Your task to perform on an android device: turn smart compose on in the gmail app Image 0: 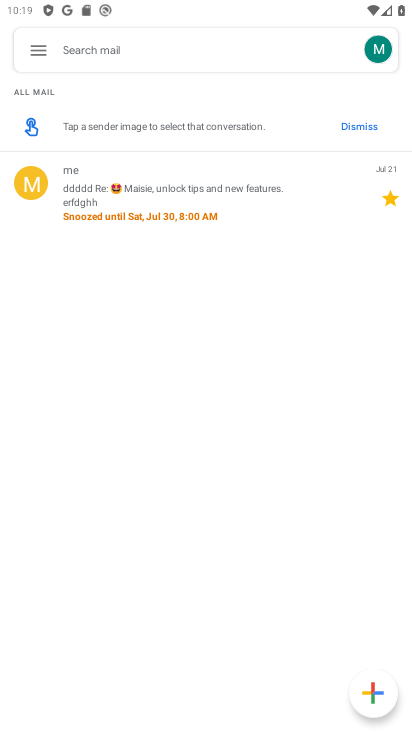
Step 0: press home button
Your task to perform on an android device: turn smart compose on in the gmail app Image 1: 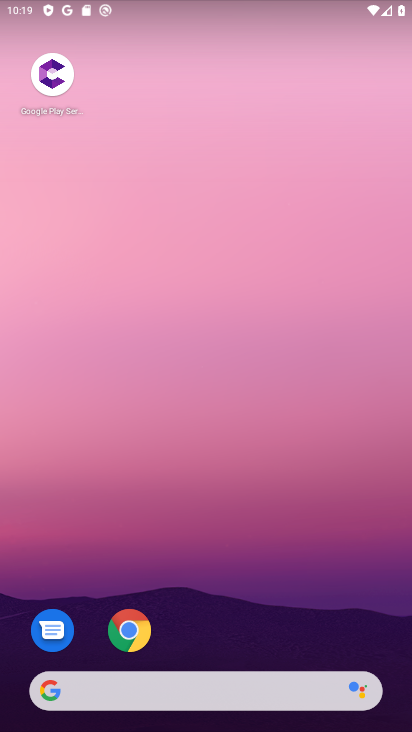
Step 1: drag from (253, 403) to (249, 76)
Your task to perform on an android device: turn smart compose on in the gmail app Image 2: 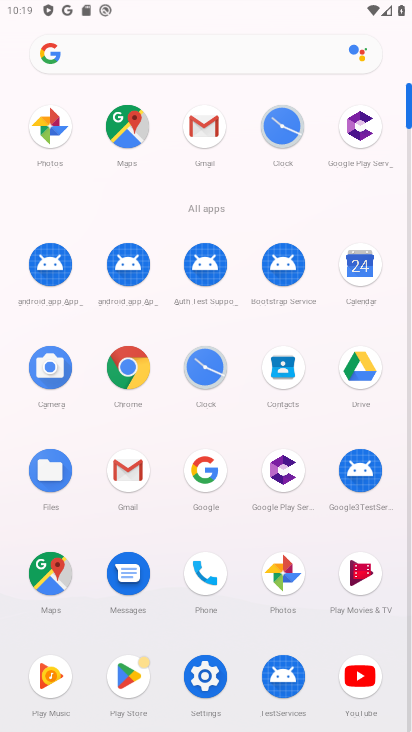
Step 2: click (200, 135)
Your task to perform on an android device: turn smart compose on in the gmail app Image 3: 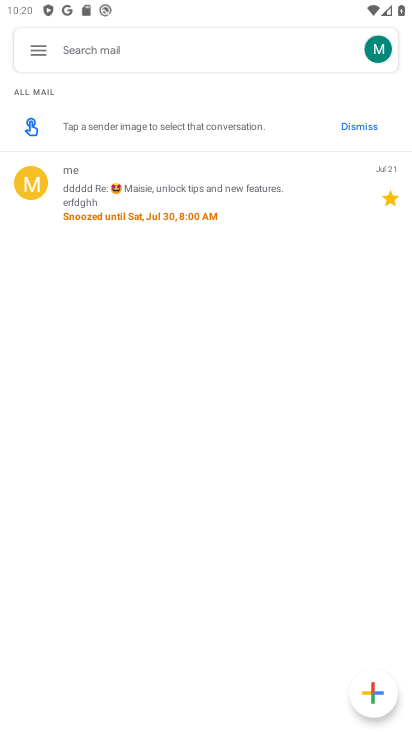
Step 3: click (38, 47)
Your task to perform on an android device: turn smart compose on in the gmail app Image 4: 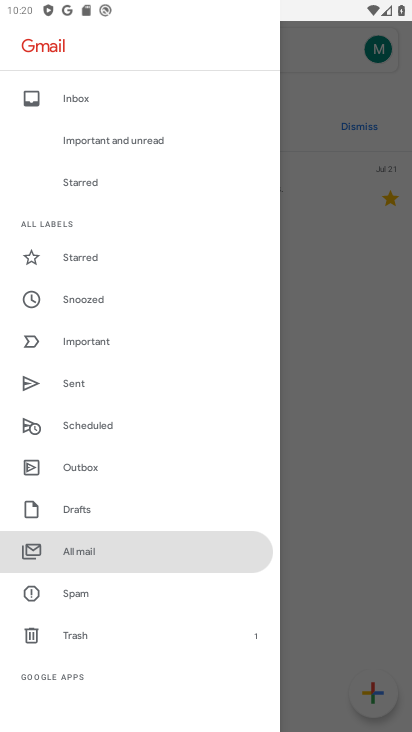
Step 4: drag from (124, 671) to (158, 358)
Your task to perform on an android device: turn smart compose on in the gmail app Image 5: 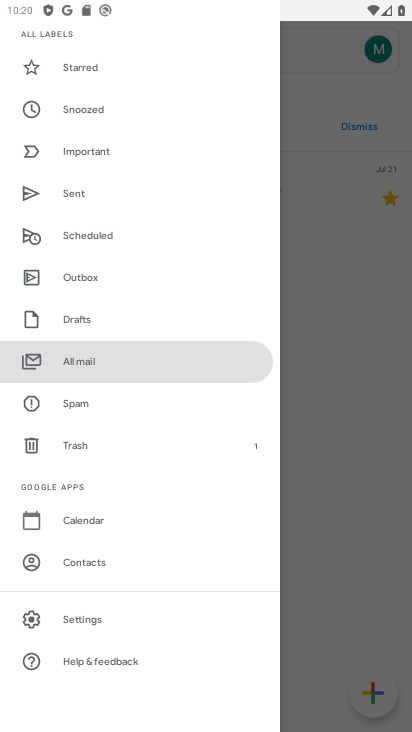
Step 5: click (97, 615)
Your task to perform on an android device: turn smart compose on in the gmail app Image 6: 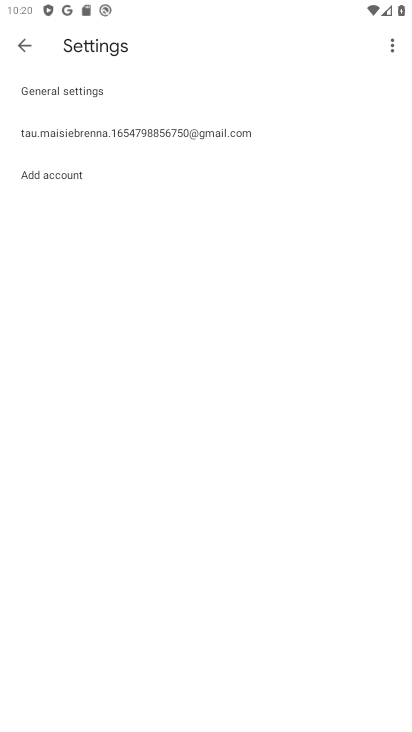
Step 6: click (71, 132)
Your task to perform on an android device: turn smart compose on in the gmail app Image 7: 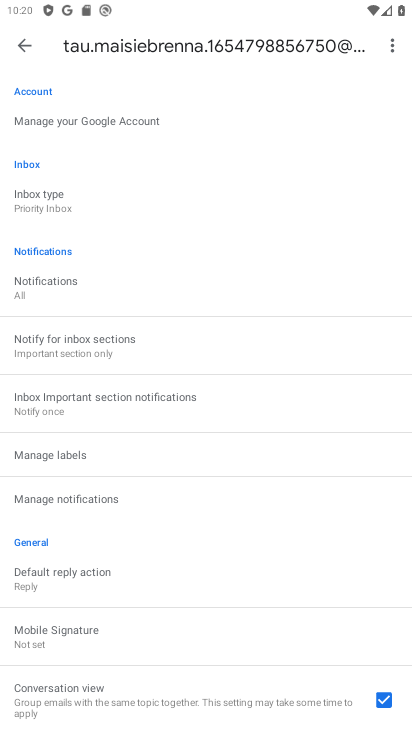
Step 7: click (247, 252)
Your task to perform on an android device: turn smart compose on in the gmail app Image 8: 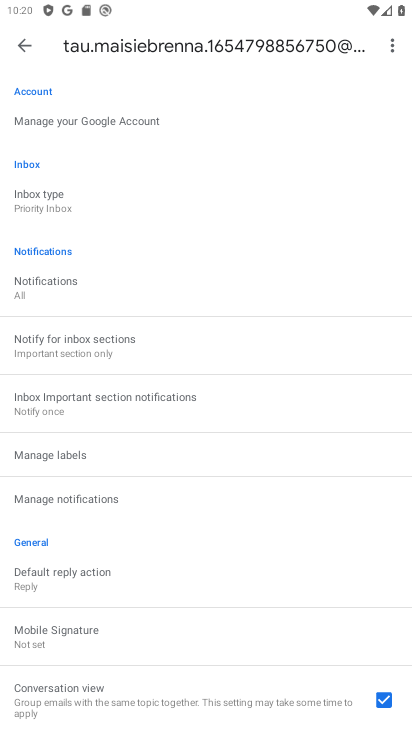
Step 8: task complete